Your task to perform on an android device: add a label to a message in the gmail app Image 0: 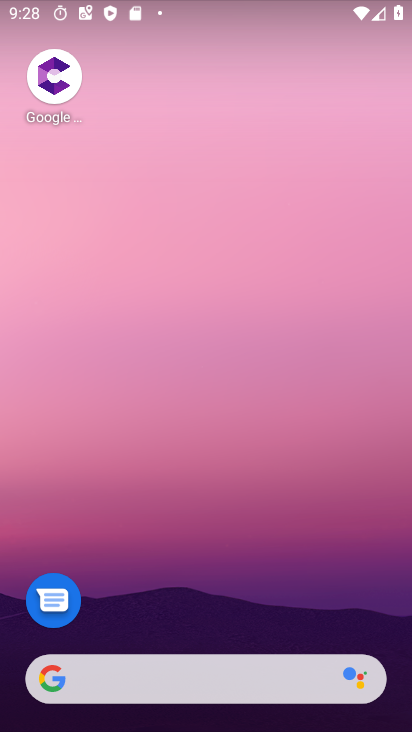
Step 0: drag from (215, 618) to (207, 63)
Your task to perform on an android device: add a label to a message in the gmail app Image 1: 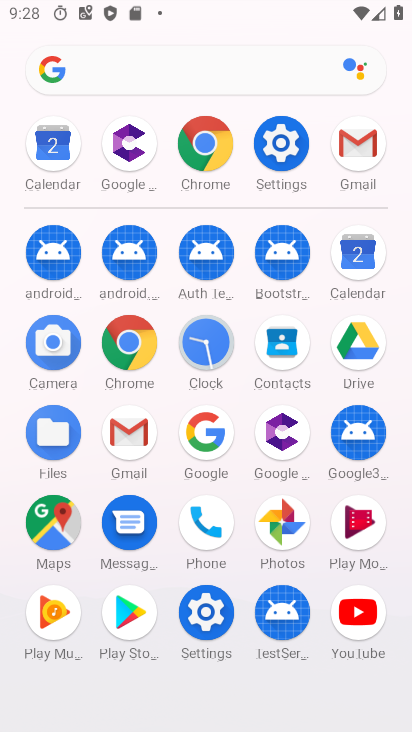
Step 1: click (131, 436)
Your task to perform on an android device: add a label to a message in the gmail app Image 2: 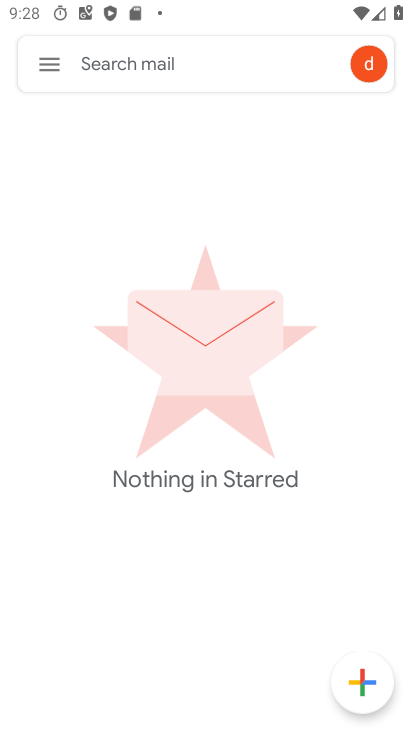
Step 2: click (57, 63)
Your task to perform on an android device: add a label to a message in the gmail app Image 3: 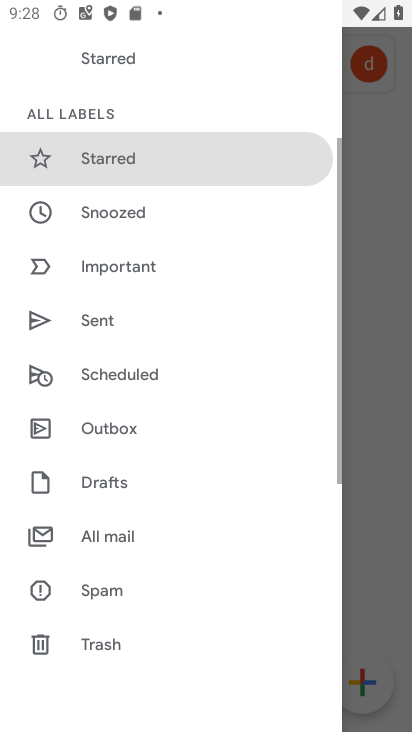
Step 3: click (111, 526)
Your task to perform on an android device: add a label to a message in the gmail app Image 4: 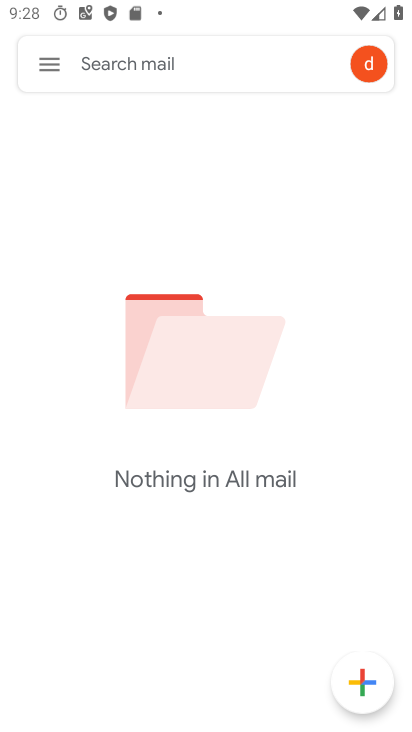
Step 4: task complete